Your task to perform on an android device: Show me the alarms in the clock app Image 0: 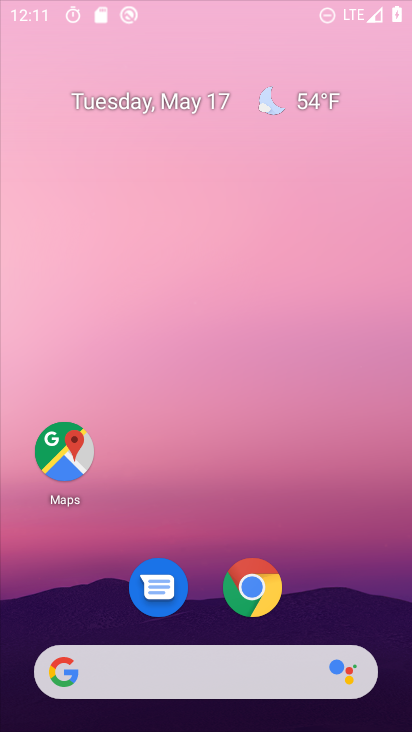
Step 0: drag from (280, 270) to (265, 208)
Your task to perform on an android device: Show me the alarms in the clock app Image 1: 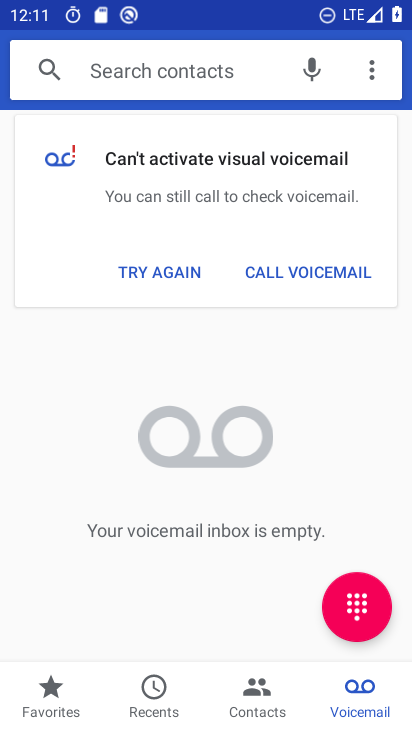
Step 1: press home button
Your task to perform on an android device: Show me the alarms in the clock app Image 2: 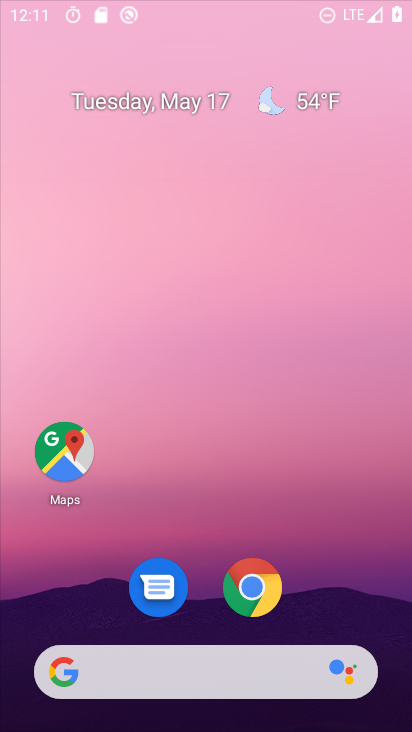
Step 2: drag from (199, 636) to (224, 200)
Your task to perform on an android device: Show me the alarms in the clock app Image 3: 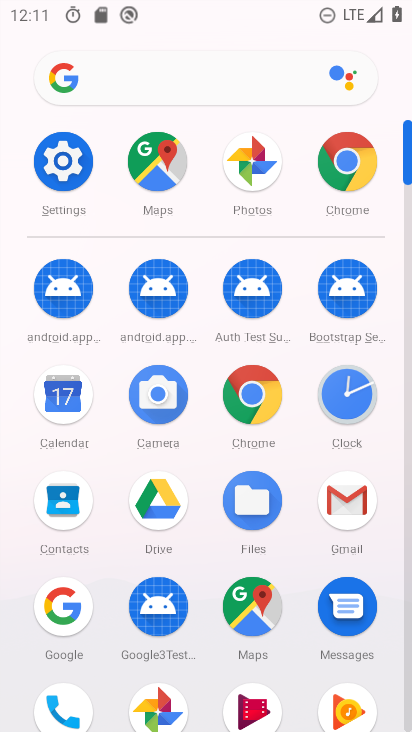
Step 3: click (341, 406)
Your task to perform on an android device: Show me the alarms in the clock app Image 4: 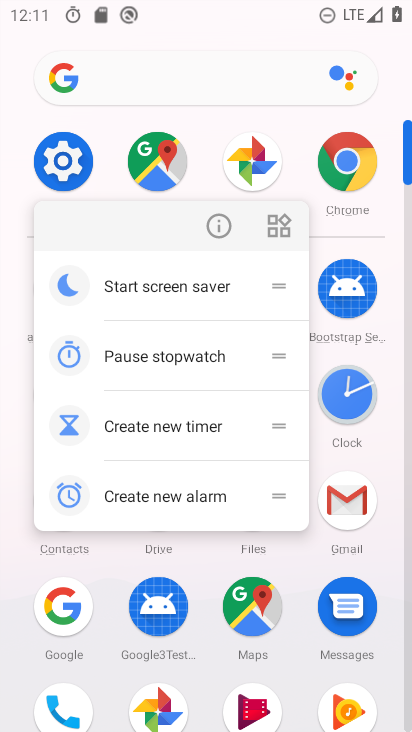
Step 4: click (206, 225)
Your task to perform on an android device: Show me the alarms in the clock app Image 5: 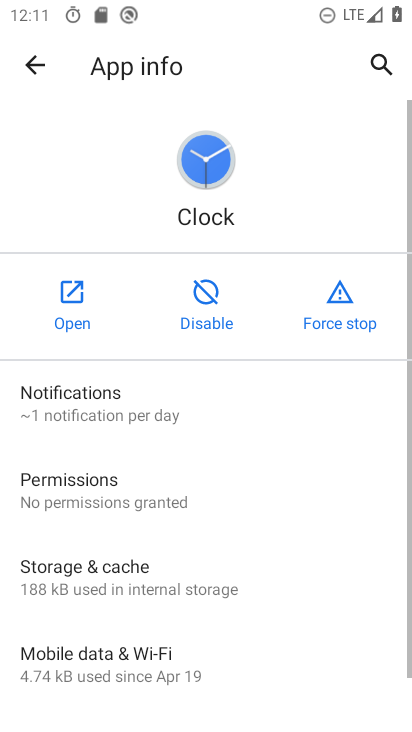
Step 5: click (66, 311)
Your task to perform on an android device: Show me the alarms in the clock app Image 6: 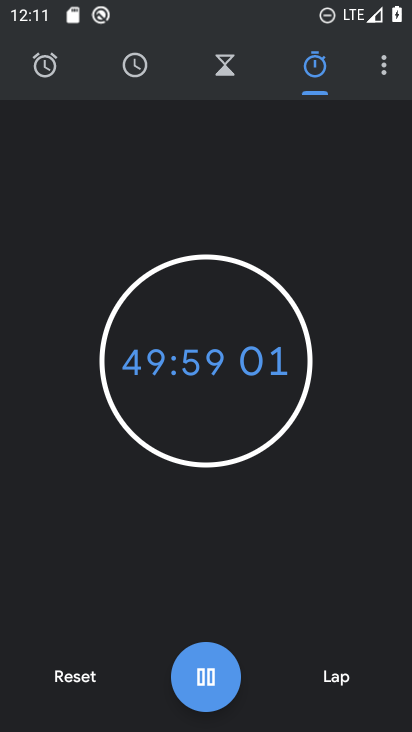
Step 6: click (371, 77)
Your task to perform on an android device: Show me the alarms in the clock app Image 7: 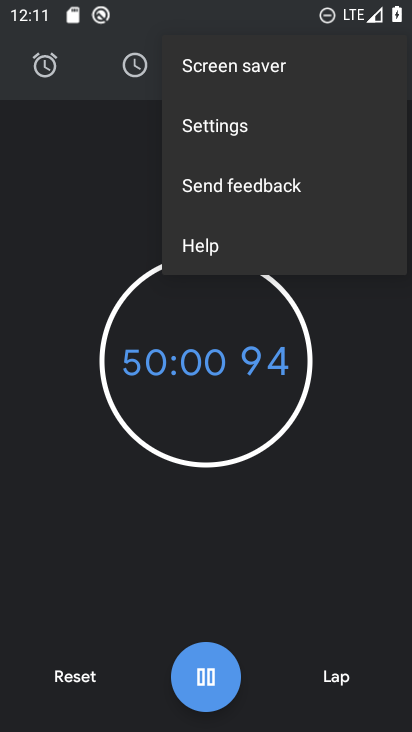
Step 7: click (54, 59)
Your task to perform on an android device: Show me the alarms in the clock app Image 8: 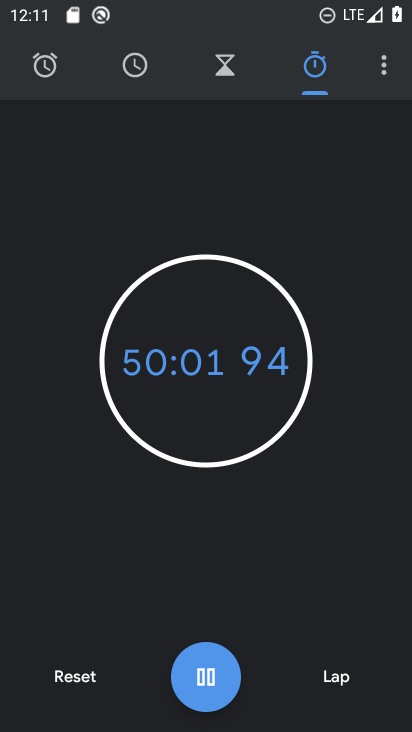
Step 8: click (54, 59)
Your task to perform on an android device: Show me the alarms in the clock app Image 9: 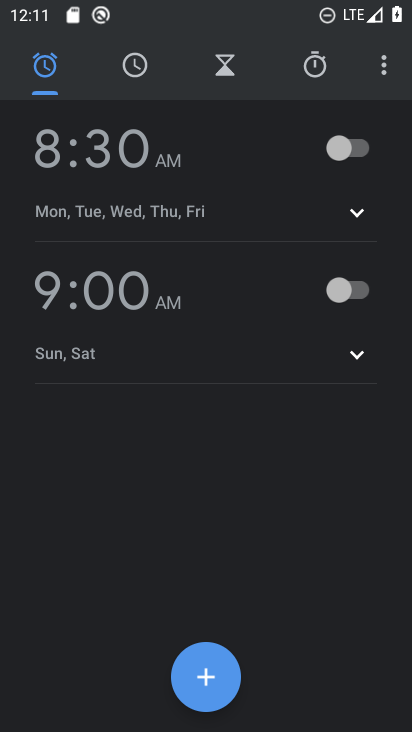
Step 9: task complete